Your task to perform on an android device: Search for seafood restaurants on Google Maps Image 0: 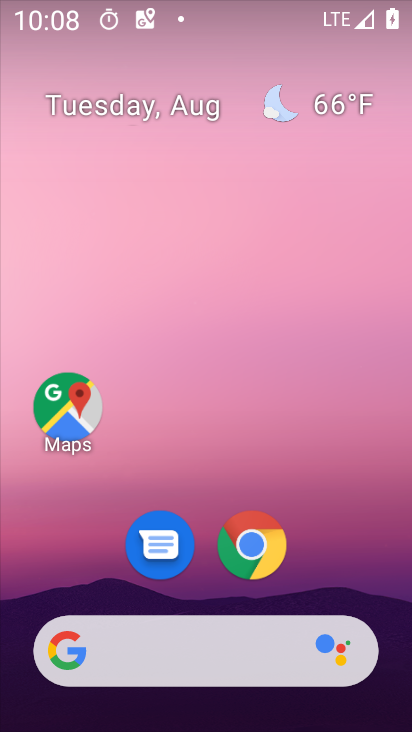
Step 0: drag from (228, 630) to (260, 124)
Your task to perform on an android device: Search for seafood restaurants on Google Maps Image 1: 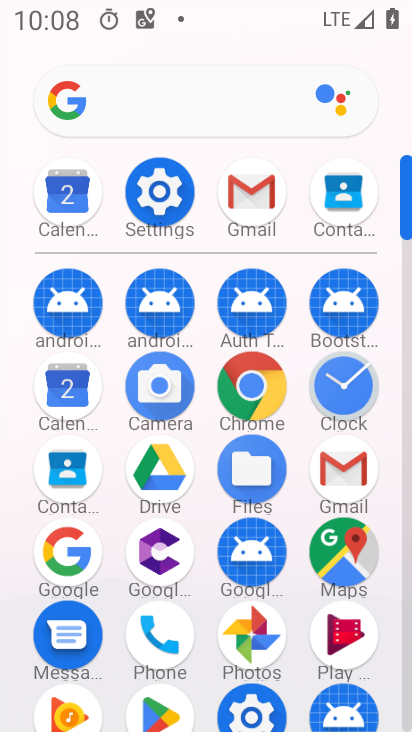
Step 1: click (345, 549)
Your task to perform on an android device: Search for seafood restaurants on Google Maps Image 2: 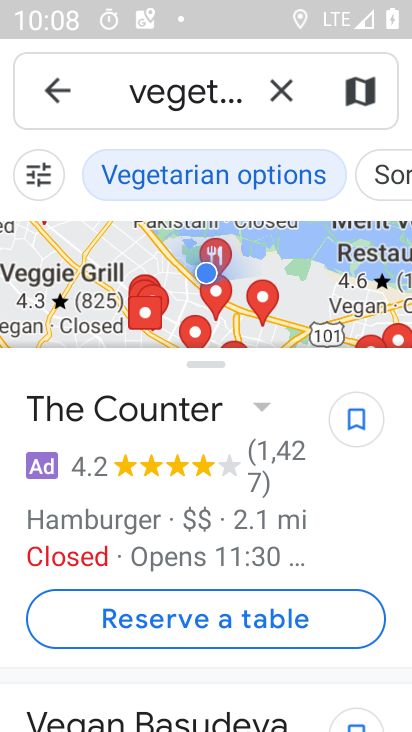
Step 2: click (278, 74)
Your task to perform on an android device: Search for seafood restaurants on Google Maps Image 3: 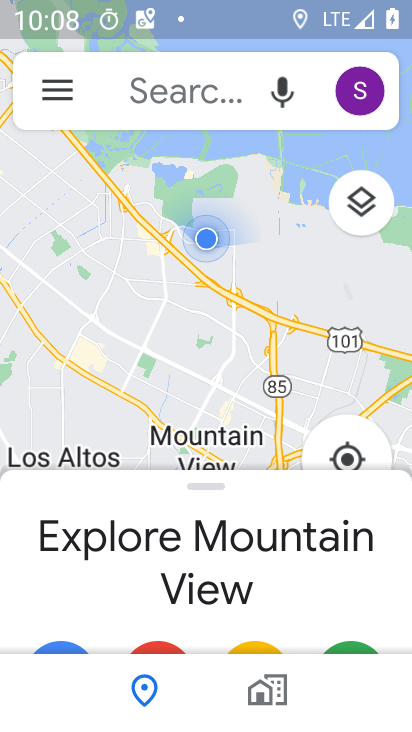
Step 3: click (198, 101)
Your task to perform on an android device: Search for seafood restaurants on Google Maps Image 4: 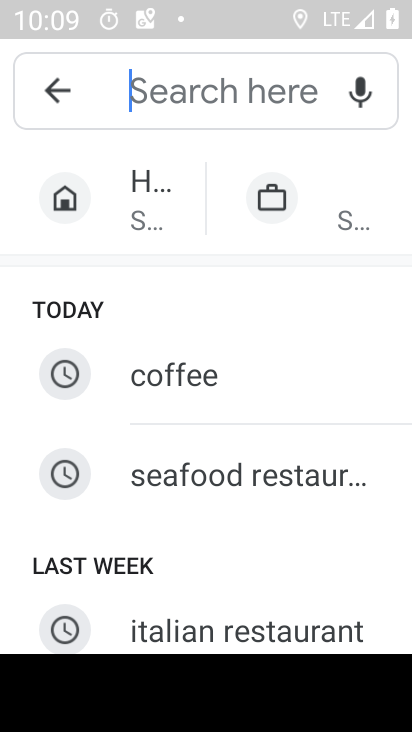
Step 4: type "seafood restaurants"
Your task to perform on an android device: Search for seafood restaurants on Google Maps Image 5: 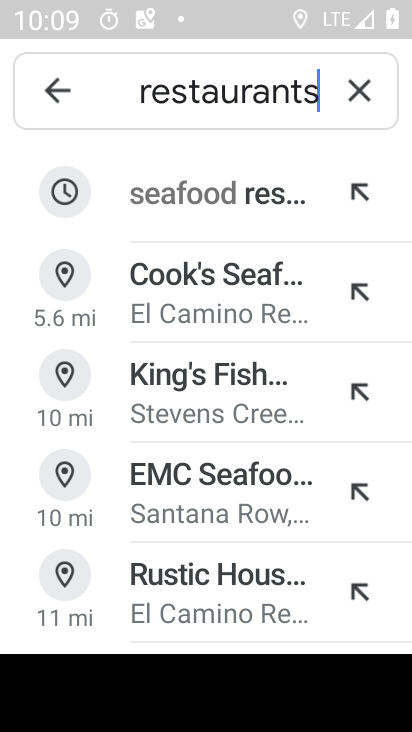
Step 5: click (222, 214)
Your task to perform on an android device: Search for seafood restaurants on Google Maps Image 6: 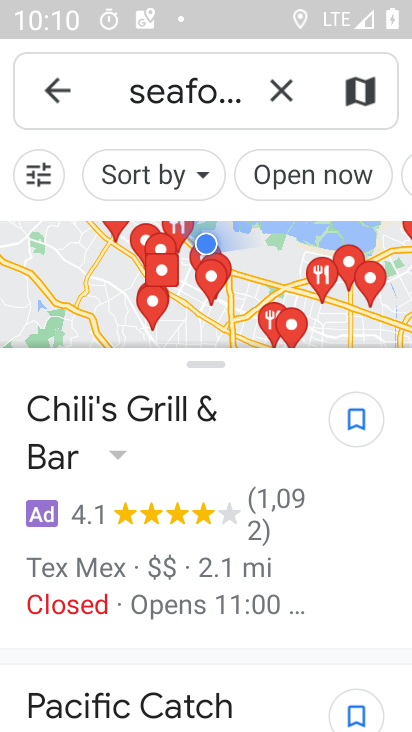
Step 6: task complete